Your task to perform on an android device: Go to Amazon Image 0: 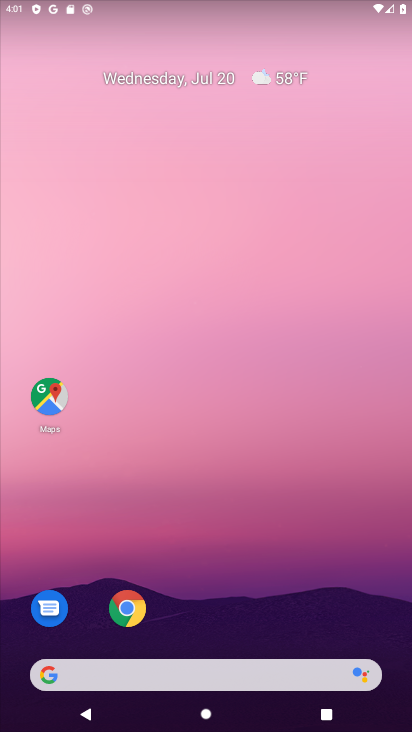
Step 0: click (123, 617)
Your task to perform on an android device: Go to Amazon Image 1: 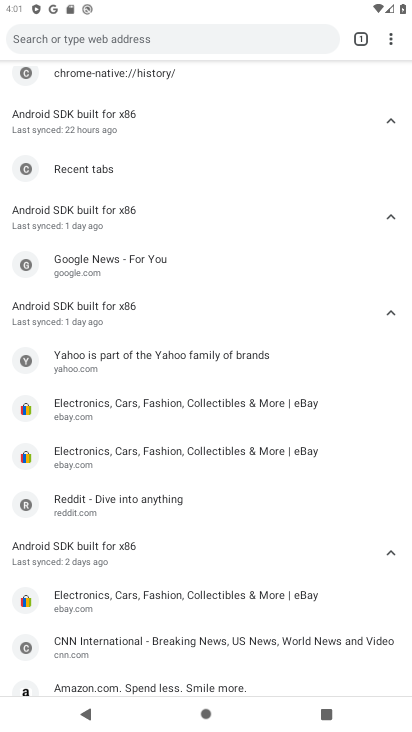
Step 1: click (195, 42)
Your task to perform on an android device: Go to Amazon Image 2: 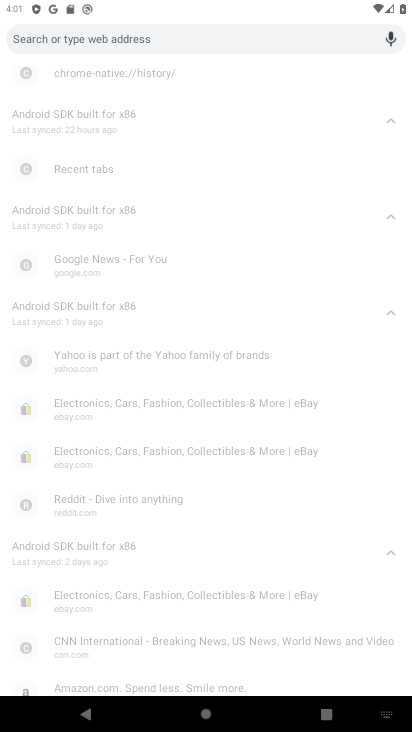
Step 2: type "Amazon"
Your task to perform on an android device: Go to Amazon Image 3: 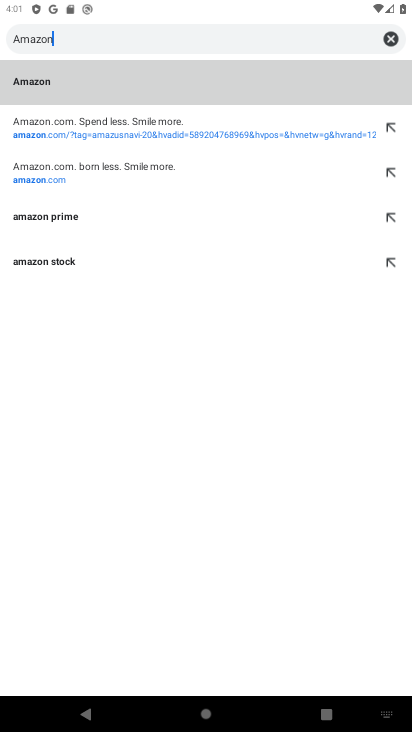
Step 3: click (64, 144)
Your task to perform on an android device: Go to Amazon Image 4: 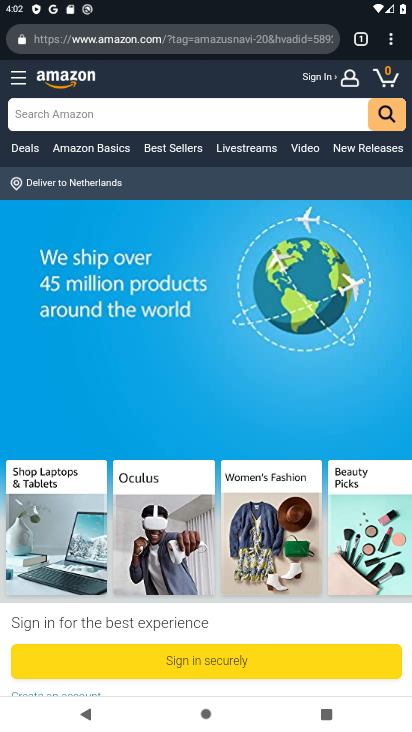
Step 4: task complete